Your task to perform on an android device: Go to Google maps Image 0: 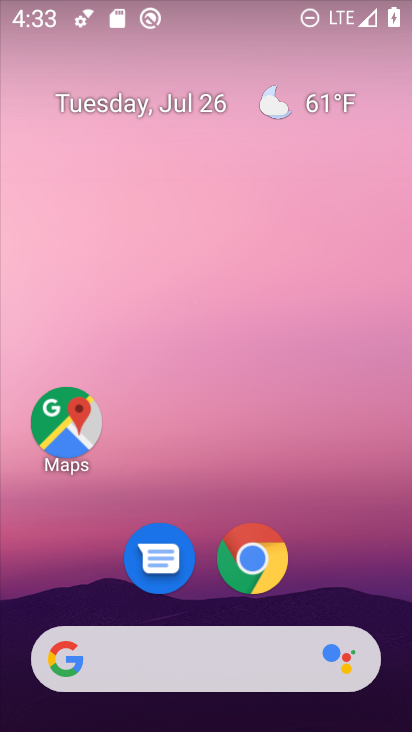
Step 0: click (55, 425)
Your task to perform on an android device: Go to Google maps Image 1: 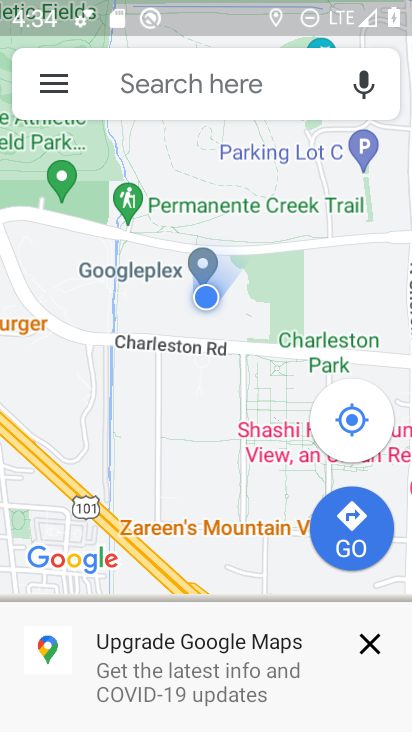
Step 1: task complete